Your task to perform on an android device: Open calendar and show me the fourth week of next month Image 0: 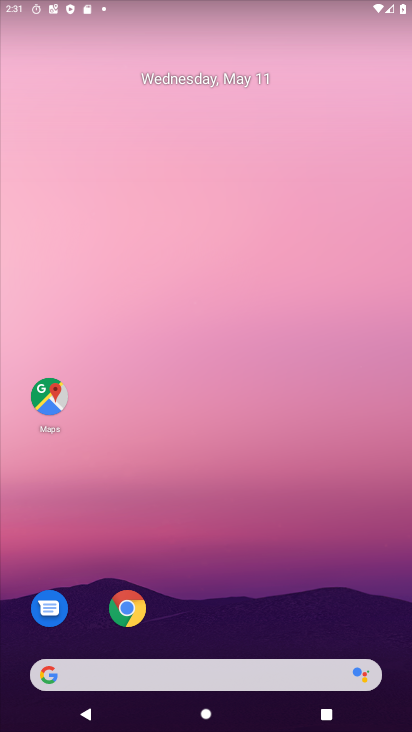
Step 0: click (247, 79)
Your task to perform on an android device: Open calendar and show me the fourth week of next month Image 1: 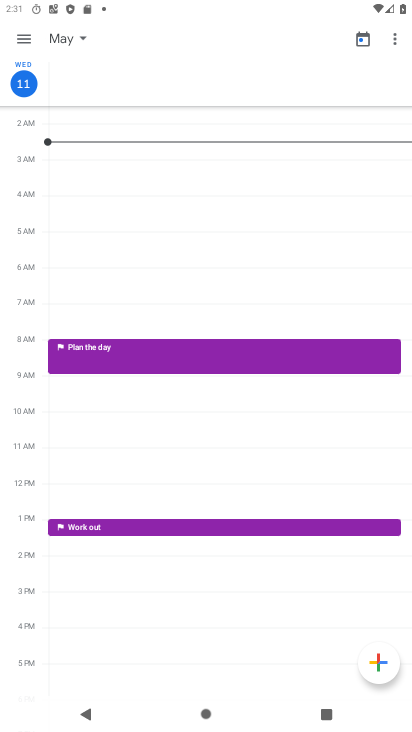
Step 1: click (20, 38)
Your task to perform on an android device: Open calendar and show me the fourth week of next month Image 2: 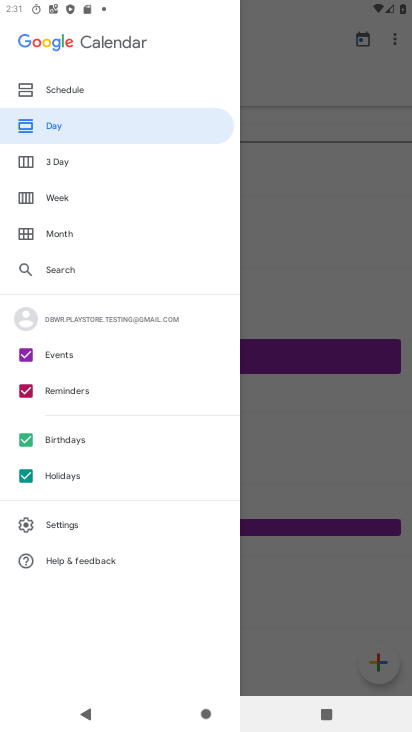
Step 2: click (61, 192)
Your task to perform on an android device: Open calendar and show me the fourth week of next month Image 3: 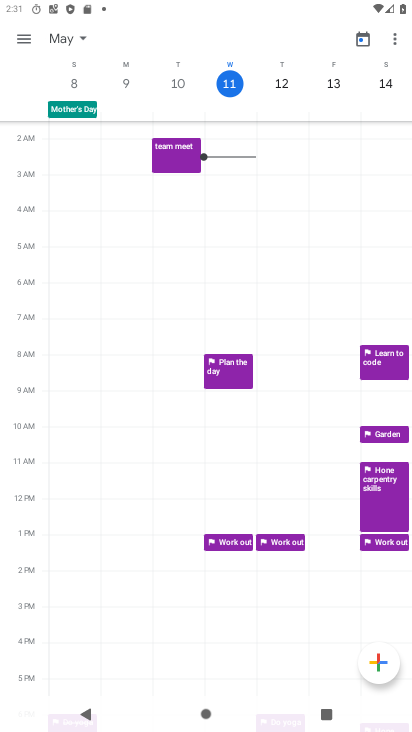
Step 3: click (76, 36)
Your task to perform on an android device: Open calendar and show me the fourth week of next month Image 4: 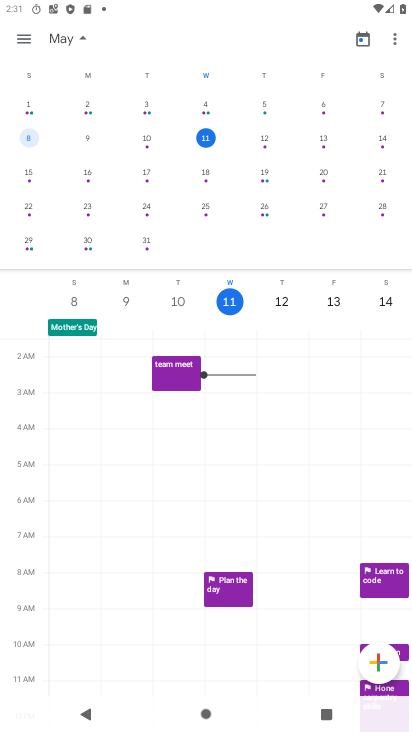
Step 4: drag from (388, 173) to (65, 171)
Your task to perform on an android device: Open calendar and show me the fourth week of next month Image 5: 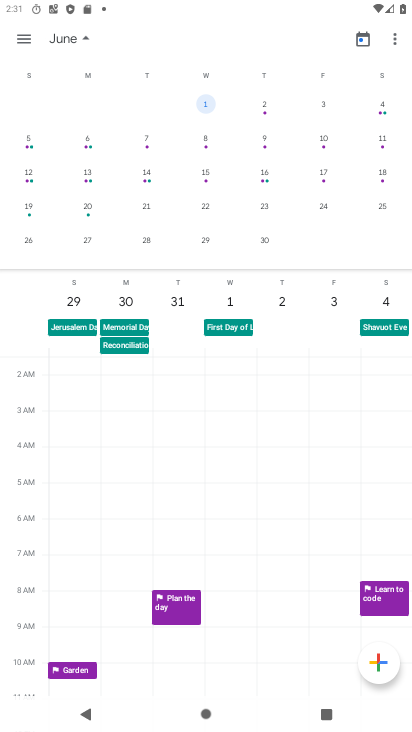
Step 5: click (147, 201)
Your task to perform on an android device: Open calendar and show me the fourth week of next month Image 6: 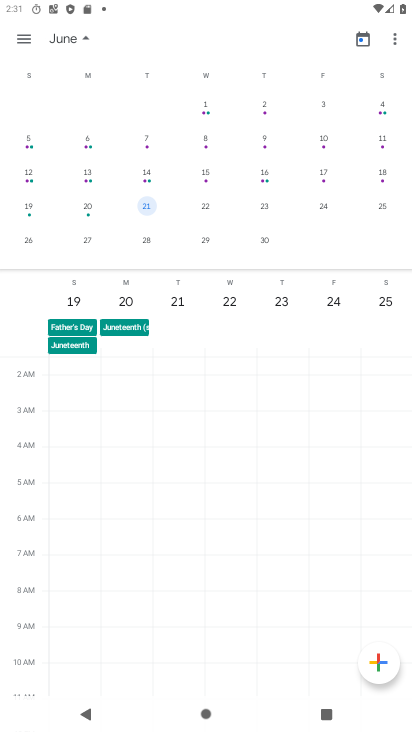
Step 6: task complete